Your task to perform on an android device: remove spam from my inbox in the gmail app Image 0: 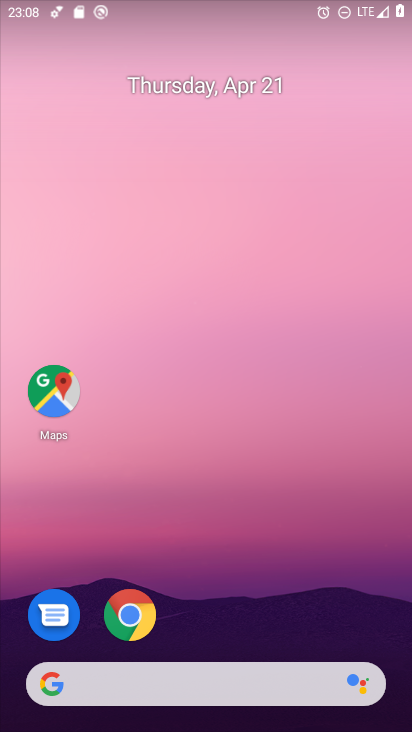
Step 0: drag from (234, 644) to (191, 89)
Your task to perform on an android device: remove spam from my inbox in the gmail app Image 1: 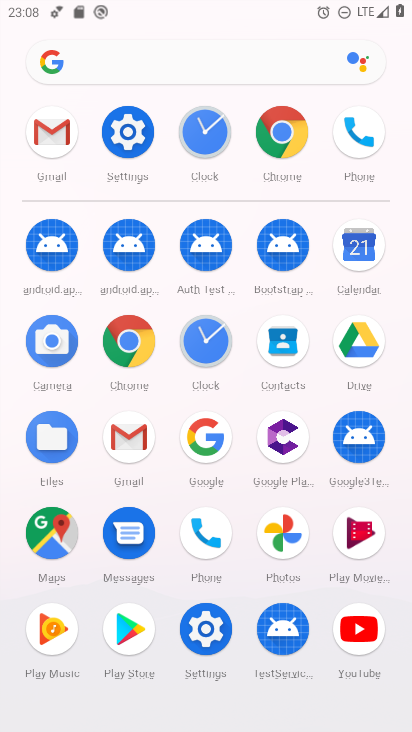
Step 1: click (126, 429)
Your task to perform on an android device: remove spam from my inbox in the gmail app Image 2: 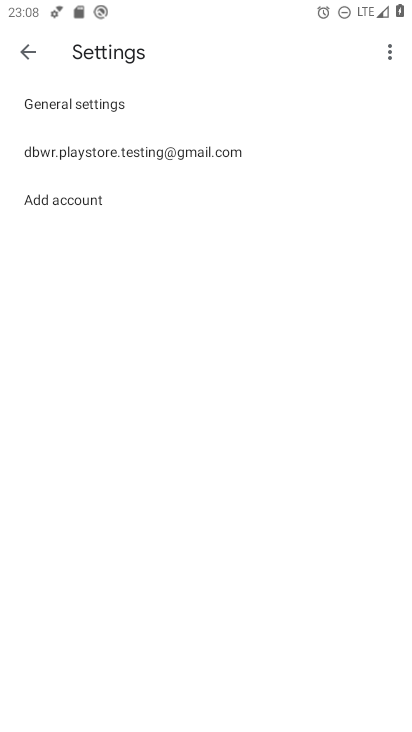
Step 2: click (32, 46)
Your task to perform on an android device: remove spam from my inbox in the gmail app Image 3: 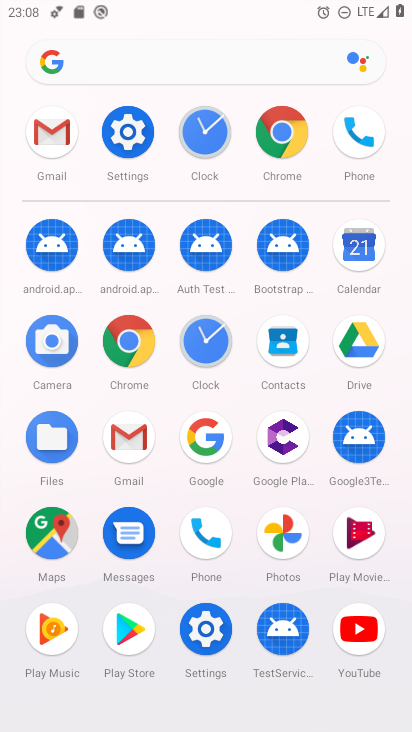
Step 3: click (129, 429)
Your task to perform on an android device: remove spam from my inbox in the gmail app Image 4: 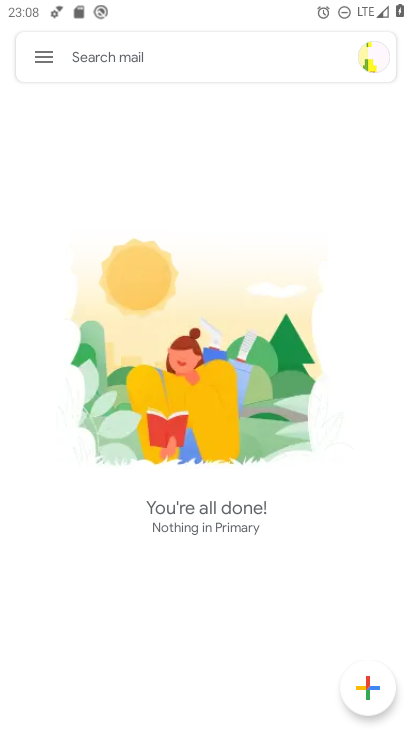
Step 4: click (41, 52)
Your task to perform on an android device: remove spam from my inbox in the gmail app Image 5: 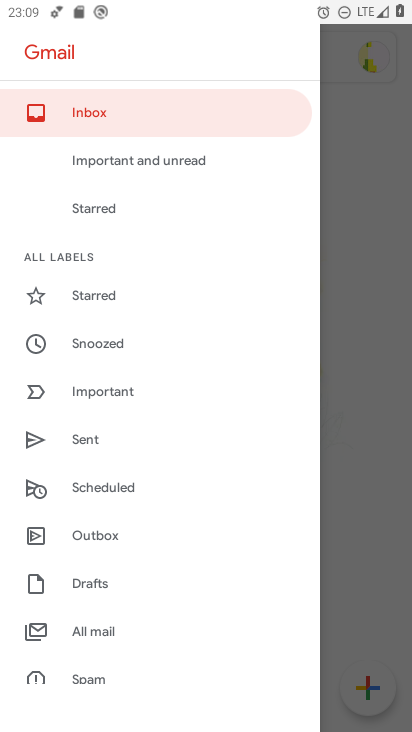
Step 5: click (110, 674)
Your task to perform on an android device: remove spam from my inbox in the gmail app Image 6: 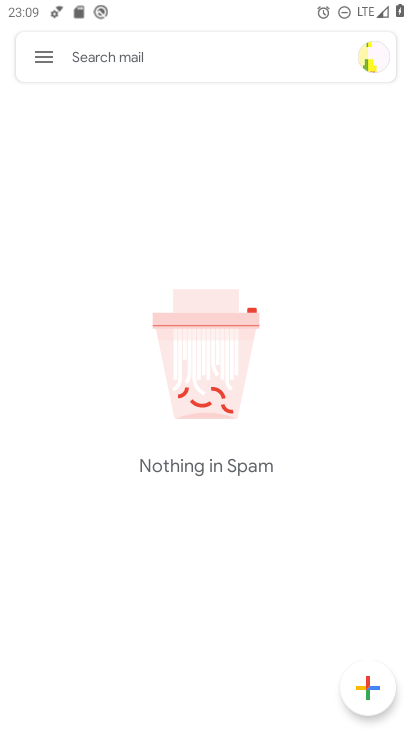
Step 6: task complete